Your task to perform on an android device: open app "Google Play Music" Image 0: 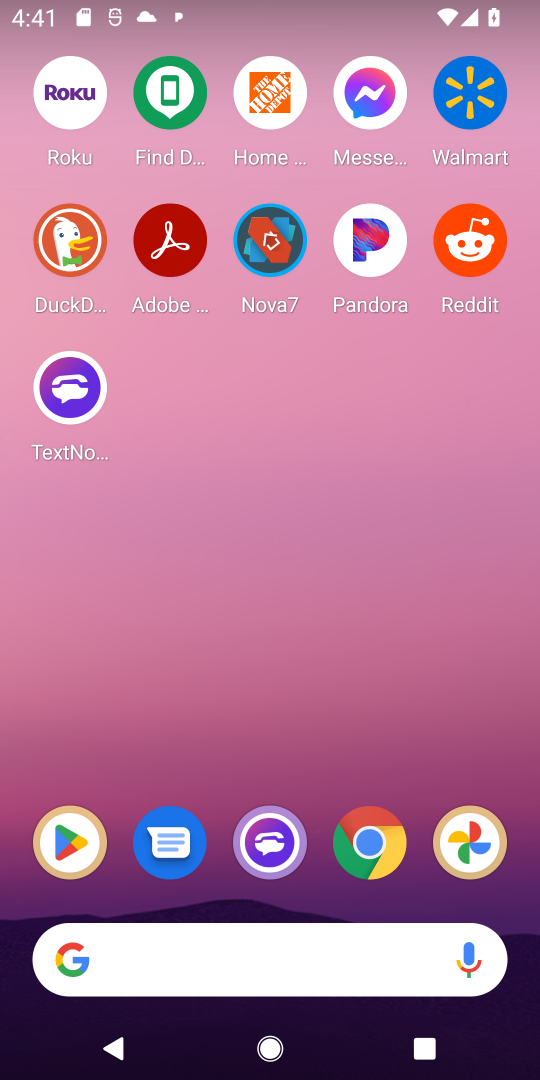
Step 0: click (84, 842)
Your task to perform on an android device: open app "Google Play Music" Image 1: 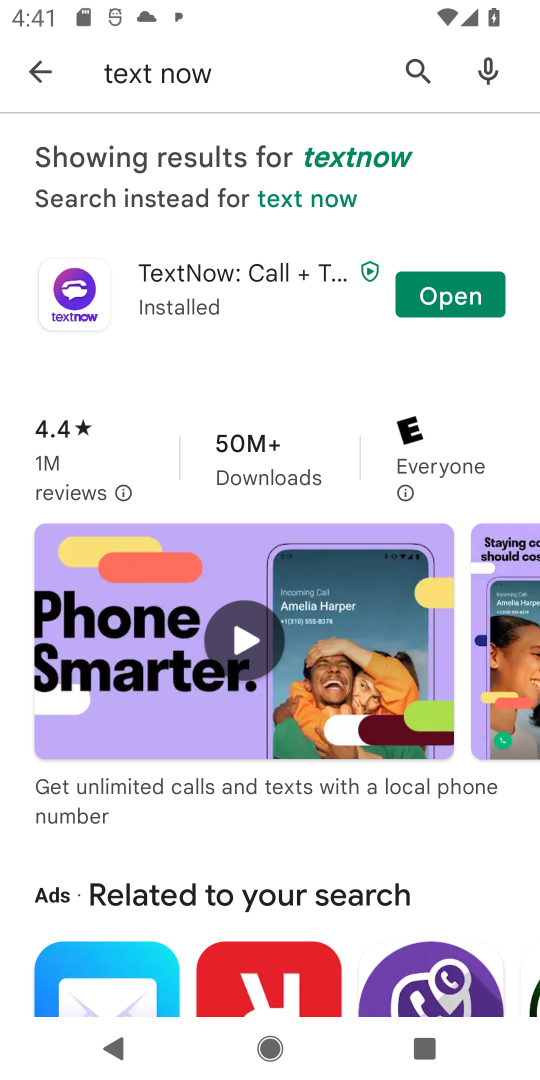
Step 1: click (409, 74)
Your task to perform on an android device: open app "Google Play Music" Image 2: 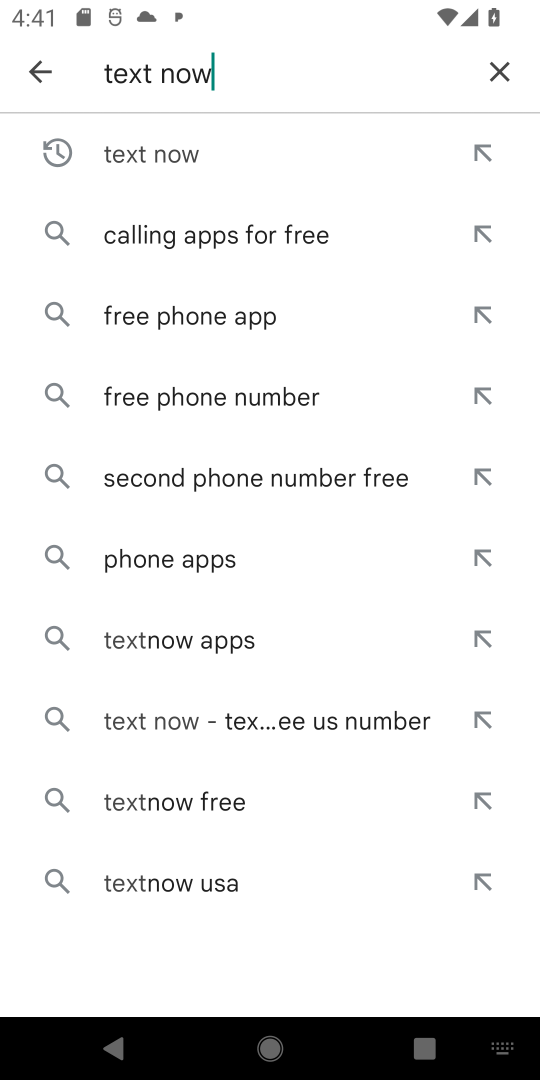
Step 2: click (491, 56)
Your task to perform on an android device: open app "Google Play Music" Image 3: 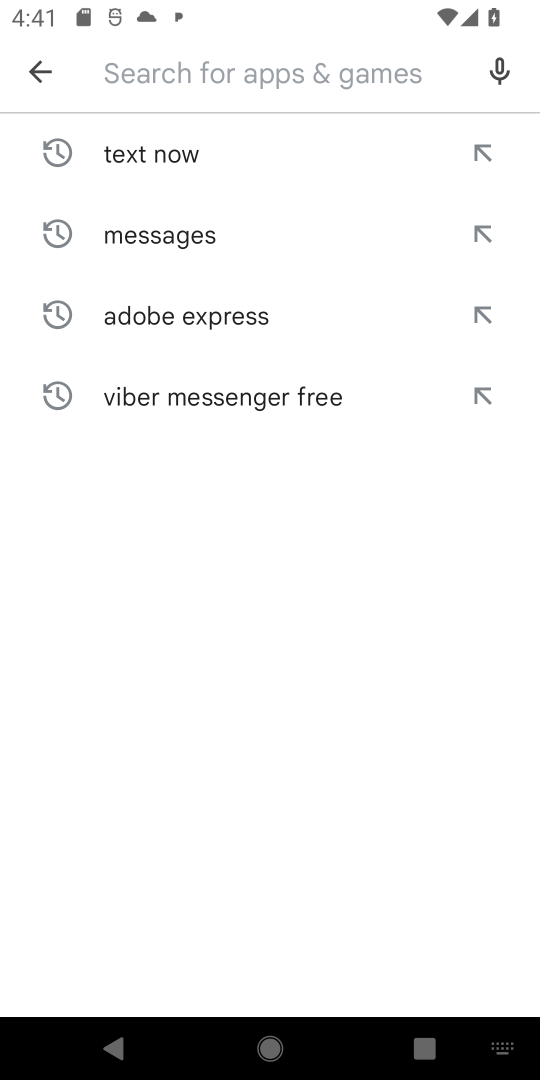
Step 3: click (207, 80)
Your task to perform on an android device: open app "Google Play Music" Image 4: 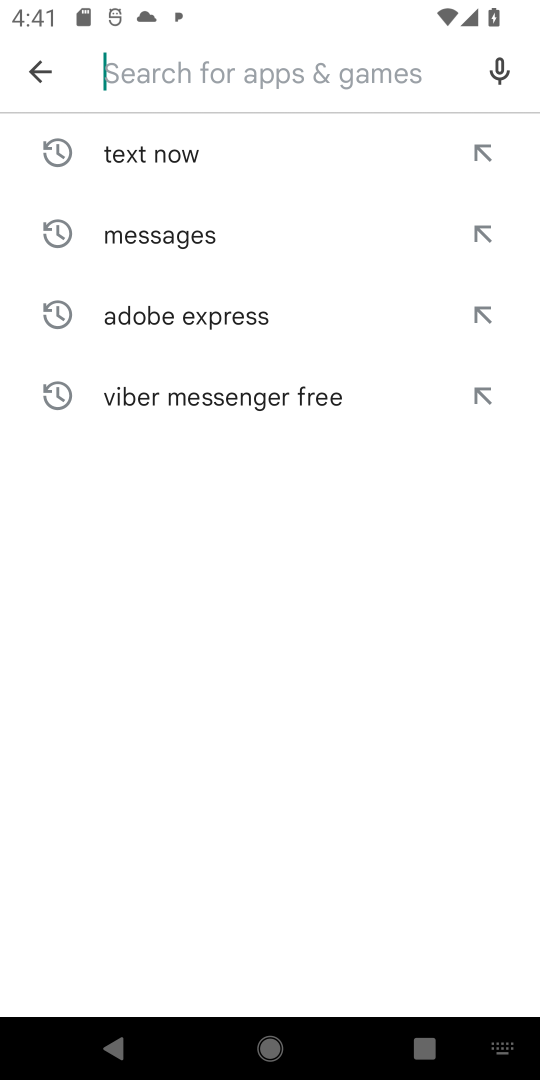
Step 4: click (192, 76)
Your task to perform on an android device: open app "Google Play Music" Image 5: 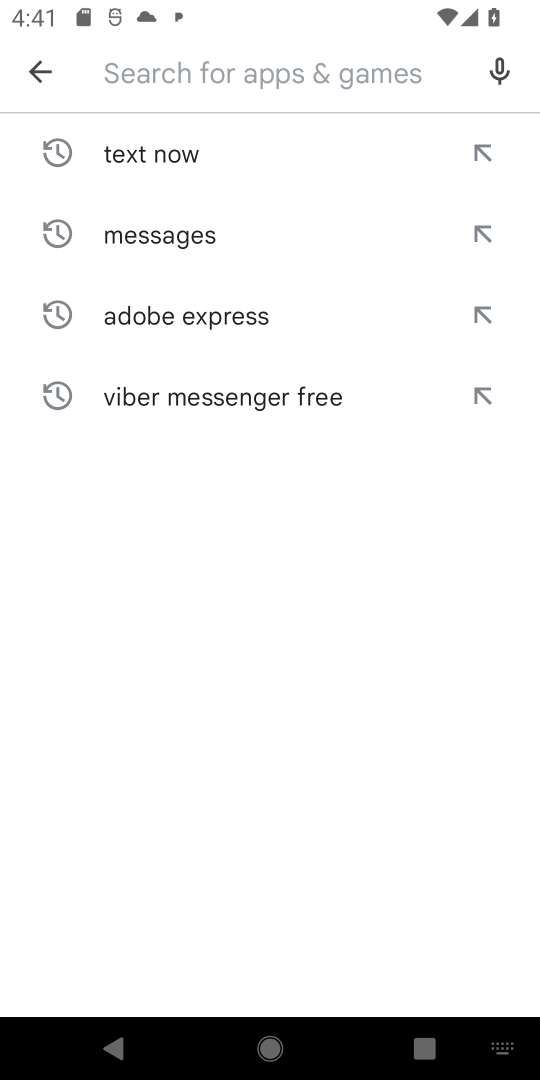
Step 5: type "Google Play Music"
Your task to perform on an android device: open app "Google Play Music" Image 6: 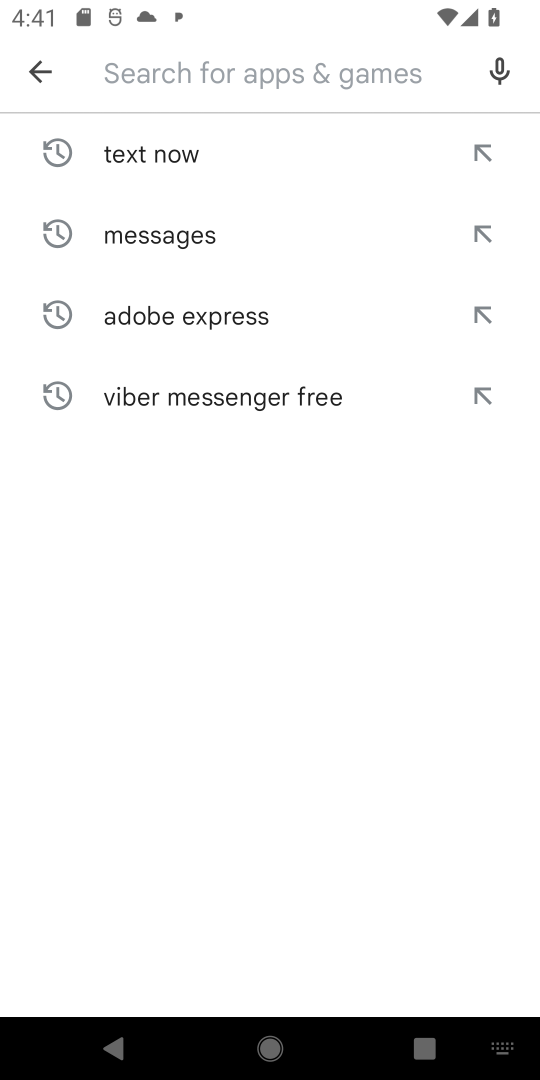
Step 6: click (236, 681)
Your task to perform on an android device: open app "Google Play Music" Image 7: 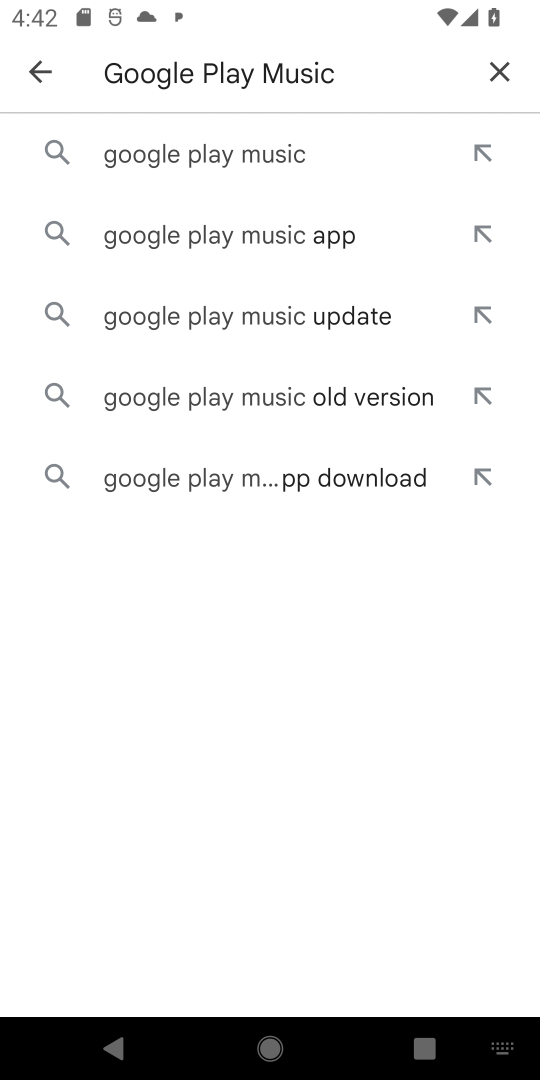
Step 7: click (225, 164)
Your task to perform on an android device: open app "Google Play Music" Image 8: 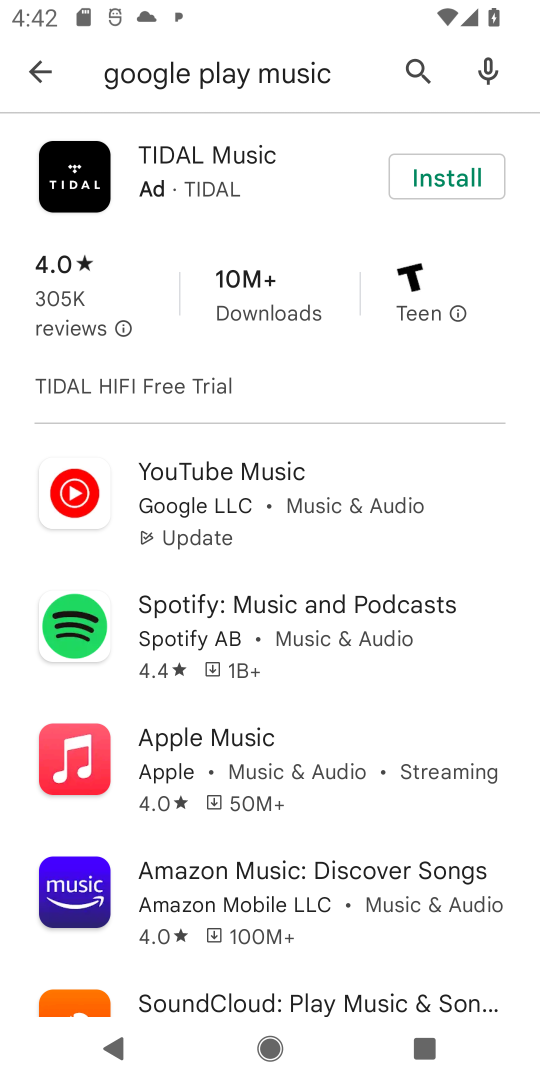
Step 8: task complete